Your task to perform on an android device: Open location settings Image 0: 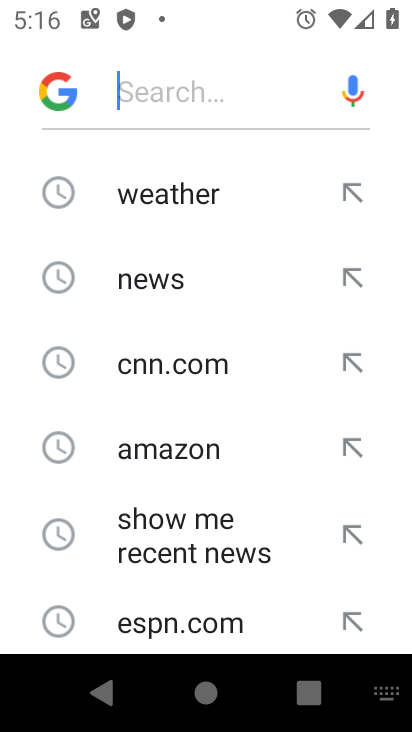
Step 0: press home button
Your task to perform on an android device: Open location settings Image 1: 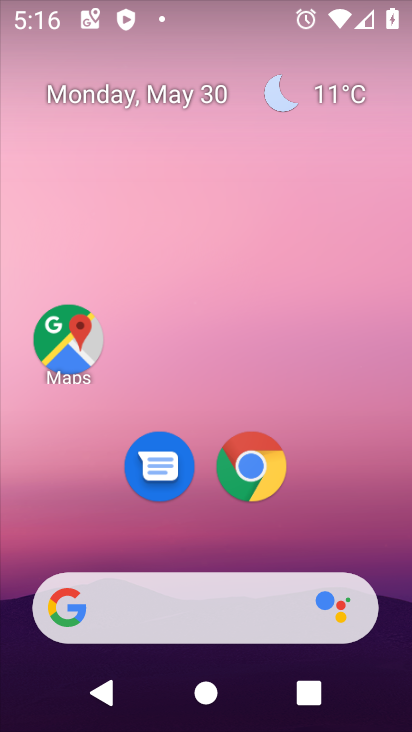
Step 1: drag from (354, 556) to (336, 61)
Your task to perform on an android device: Open location settings Image 2: 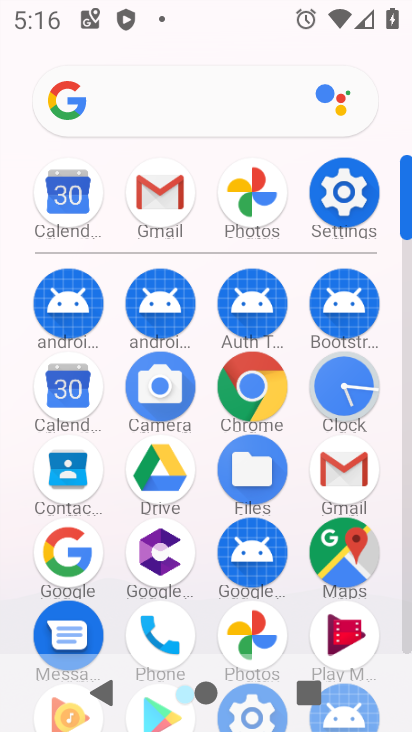
Step 2: click (338, 186)
Your task to perform on an android device: Open location settings Image 3: 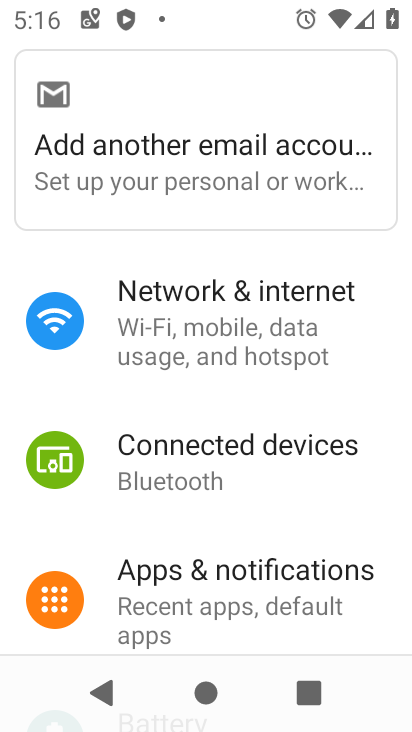
Step 3: drag from (201, 586) to (259, 95)
Your task to perform on an android device: Open location settings Image 4: 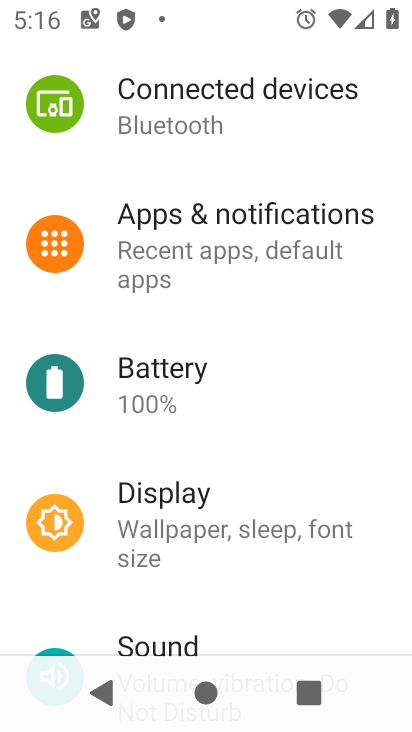
Step 4: drag from (193, 446) to (283, 89)
Your task to perform on an android device: Open location settings Image 5: 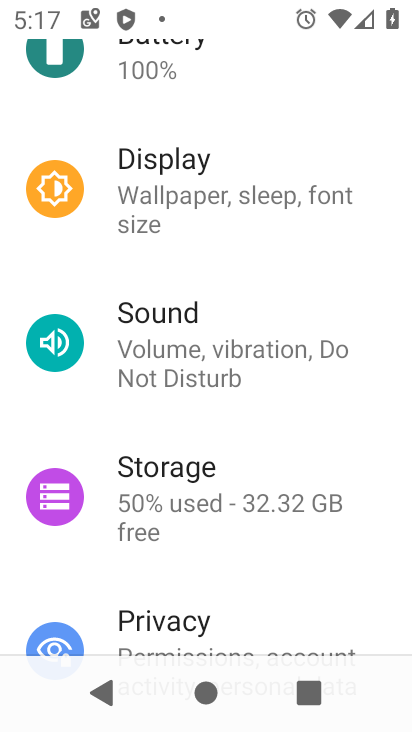
Step 5: drag from (211, 542) to (259, 116)
Your task to perform on an android device: Open location settings Image 6: 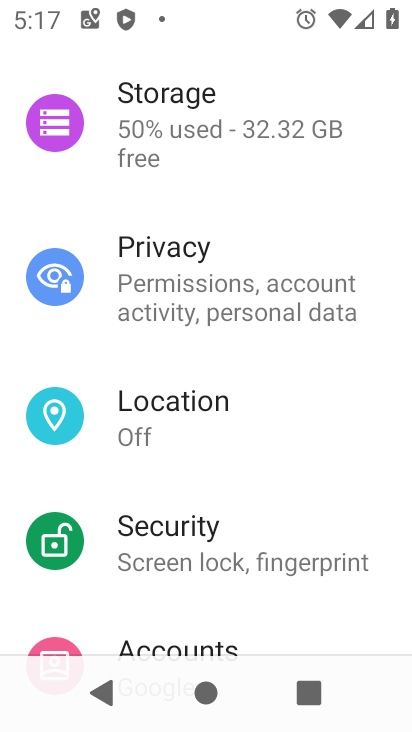
Step 6: click (198, 410)
Your task to perform on an android device: Open location settings Image 7: 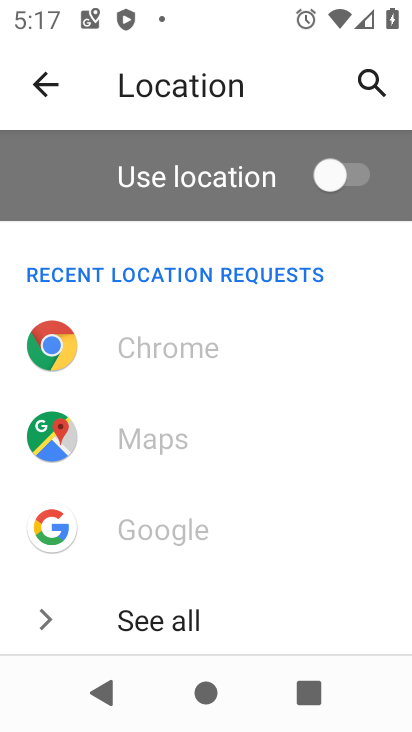
Step 7: task complete